Your task to perform on an android device: open sync settings in chrome Image 0: 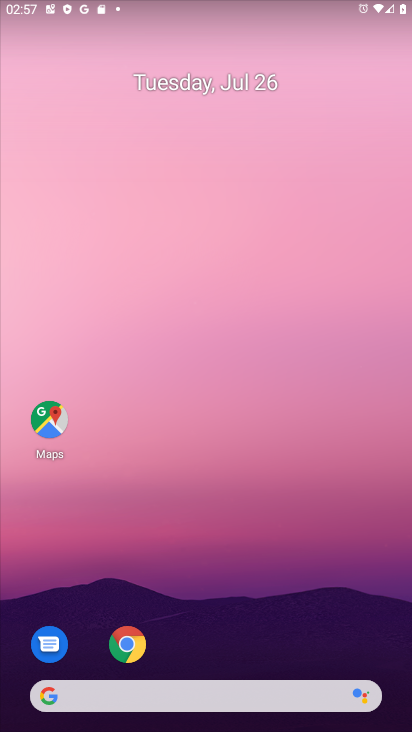
Step 0: click (140, 646)
Your task to perform on an android device: open sync settings in chrome Image 1: 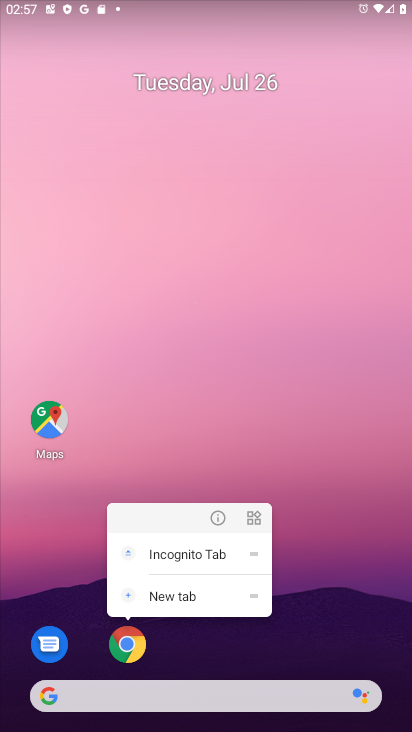
Step 1: click (119, 647)
Your task to perform on an android device: open sync settings in chrome Image 2: 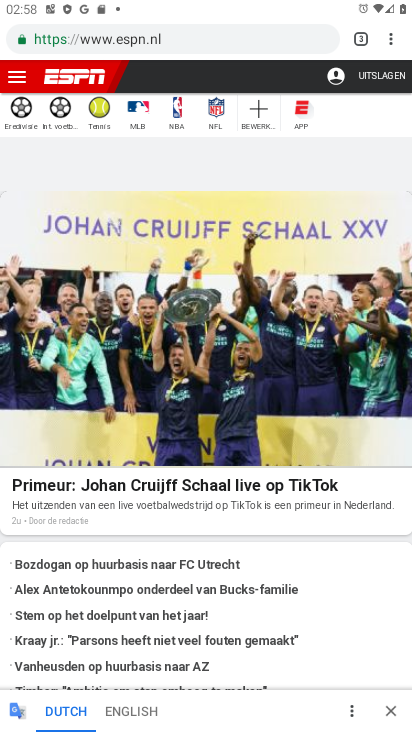
Step 2: drag from (391, 44) to (268, 466)
Your task to perform on an android device: open sync settings in chrome Image 3: 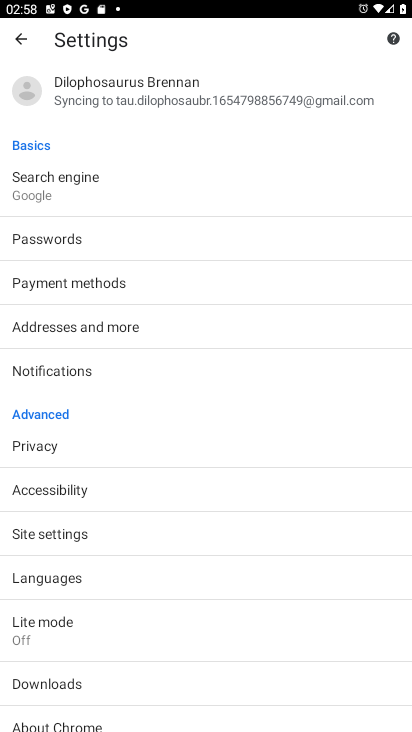
Step 3: click (119, 100)
Your task to perform on an android device: open sync settings in chrome Image 4: 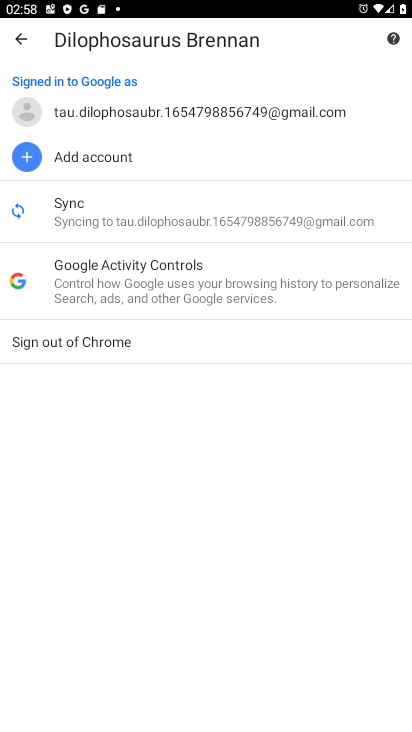
Step 4: click (118, 214)
Your task to perform on an android device: open sync settings in chrome Image 5: 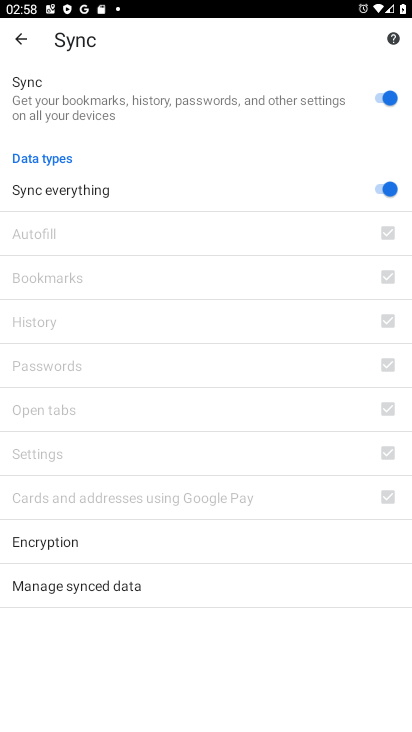
Step 5: task complete